Your task to perform on an android device: Open the stopwatch Image 0: 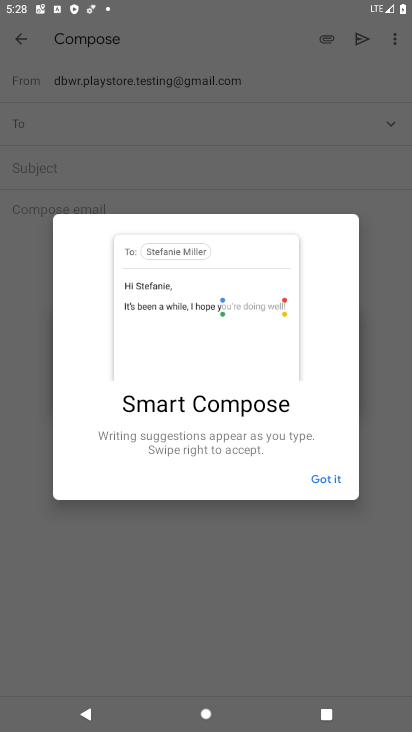
Step 0: press home button
Your task to perform on an android device: Open the stopwatch Image 1: 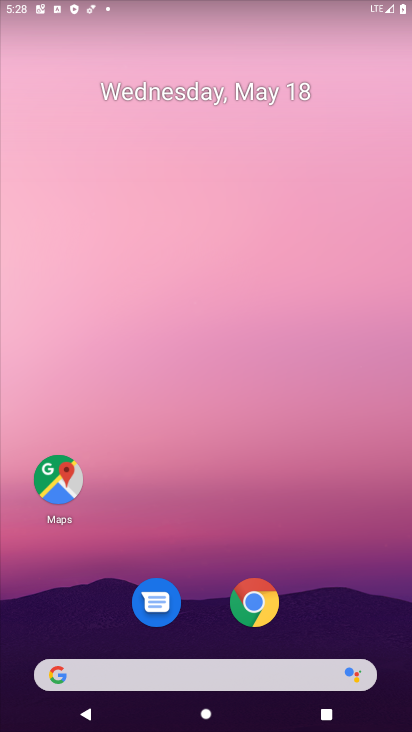
Step 1: drag from (238, 688) to (314, 12)
Your task to perform on an android device: Open the stopwatch Image 2: 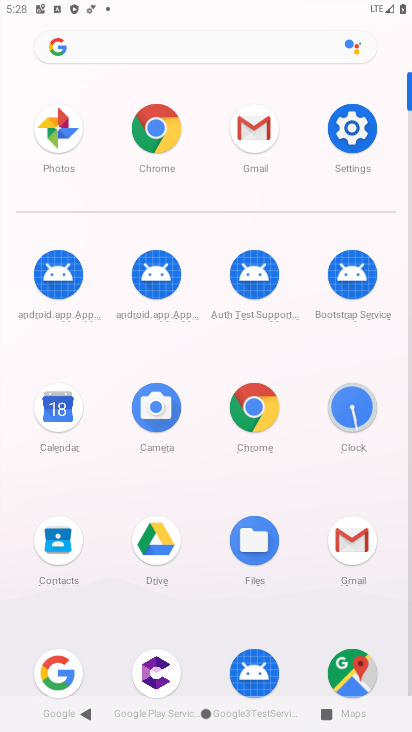
Step 2: click (352, 415)
Your task to perform on an android device: Open the stopwatch Image 3: 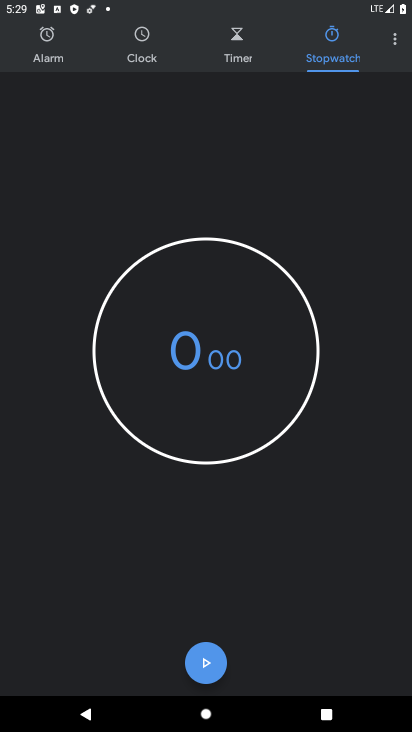
Step 3: task complete